Your task to perform on an android device: Search for Italian restaurants on Maps Image 0: 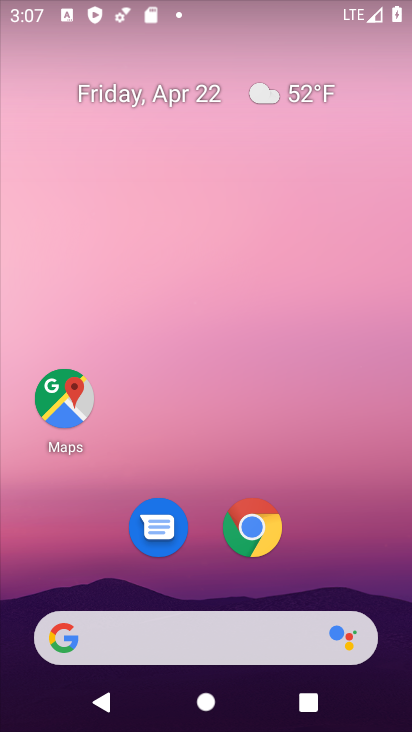
Step 0: drag from (377, 493) to (388, 116)
Your task to perform on an android device: Search for Italian restaurants on Maps Image 1: 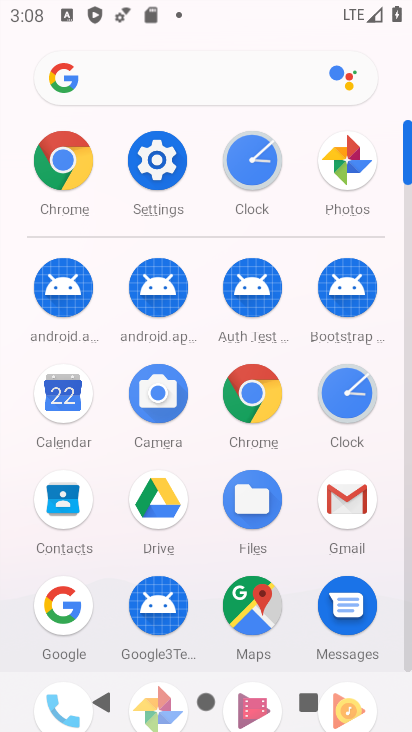
Step 1: click (264, 609)
Your task to perform on an android device: Search for Italian restaurants on Maps Image 2: 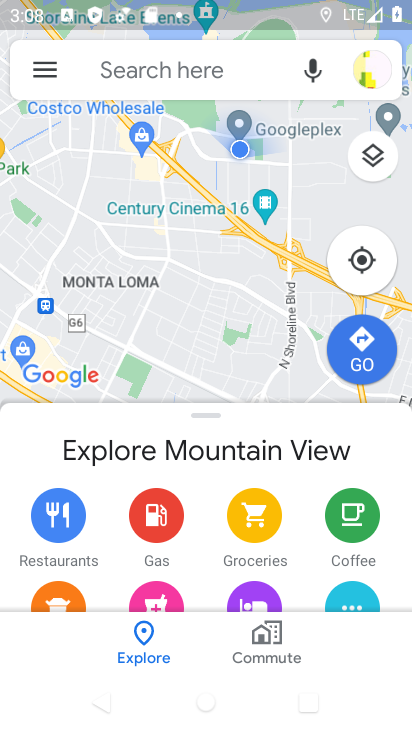
Step 2: click (240, 79)
Your task to perform on an android device: Search for Italian restaurants on Maps Image 3: 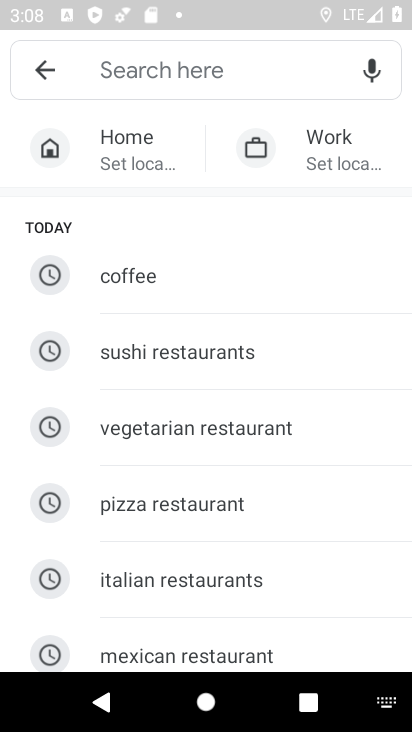
Step 3: click (164, 578)
Your task to perform on an android device: Search for Italian restaurants on Maps Image 4: 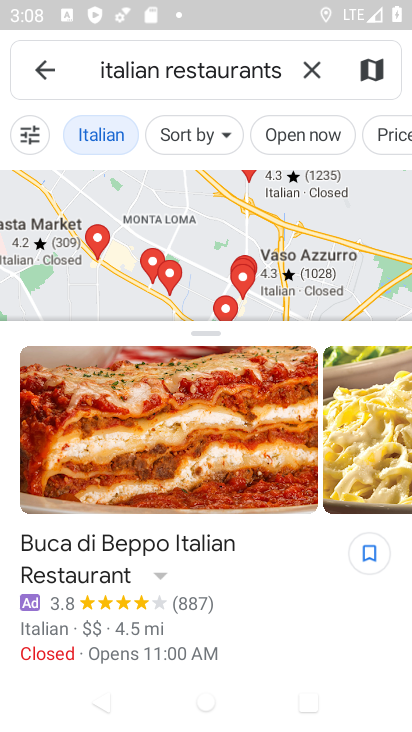
Step 4: task complete